Your task to perform on an android device: turn on javascript in the chrome app Image 0: 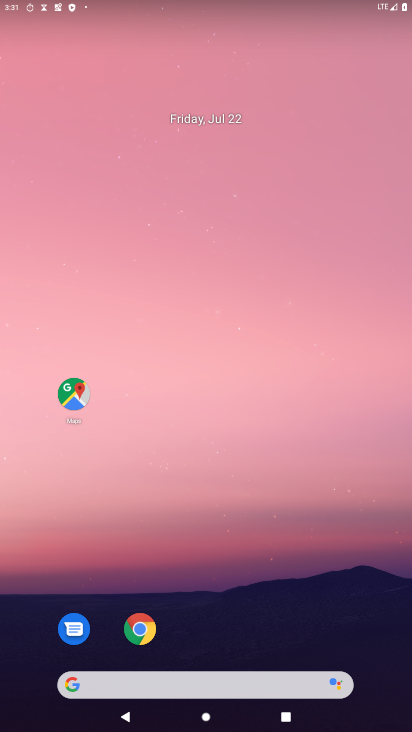
Step 0: drag from (244, 545) to (297, 24)
Your task to perform on an android device: turn on javascript in the chrome app Image 1: 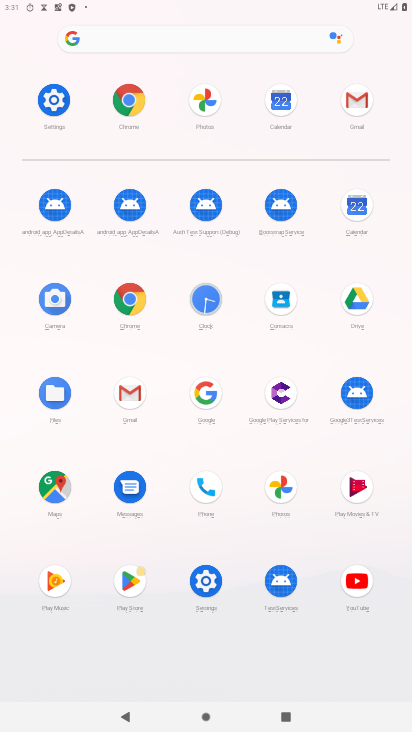
Step 1: click (125, 291)
Your task to perform on an android device: turn on javascript in the chrome app Image 2: 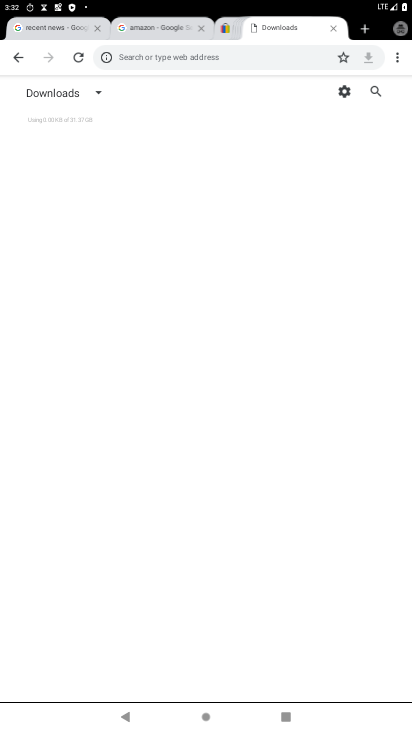
Step 2: click (398, 55)
Your task to perform on an android device: turn on javascript in the chrome app Image 3: 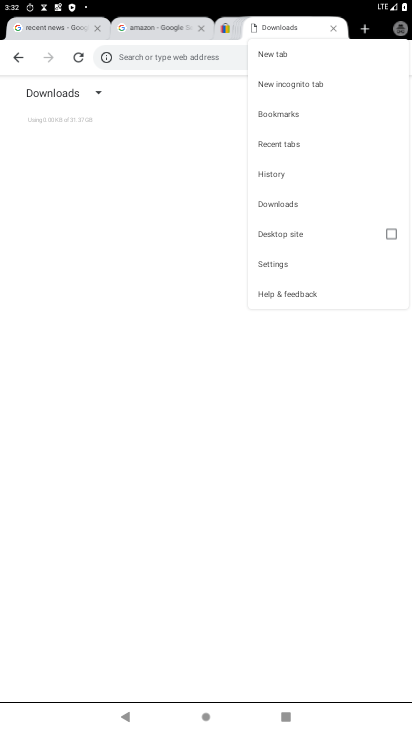
Step 3: click (296, 262)
Your task to perform on an android device: turn on javascript in the chrome app Image 4: 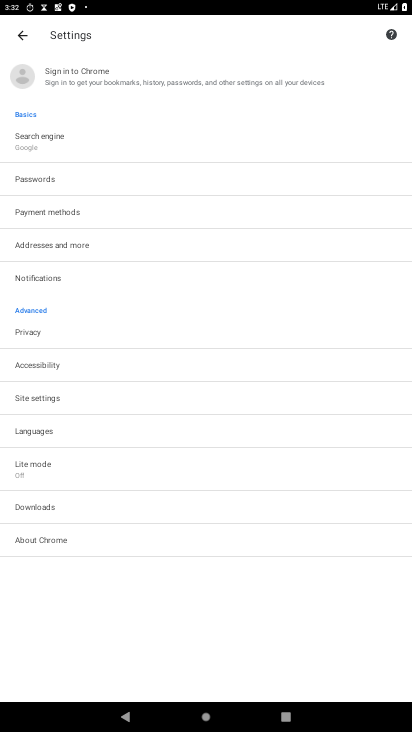
Step 4: click (69, 394)
Your task to perform on an android device: turn on javascript in the chrome app Image 5: 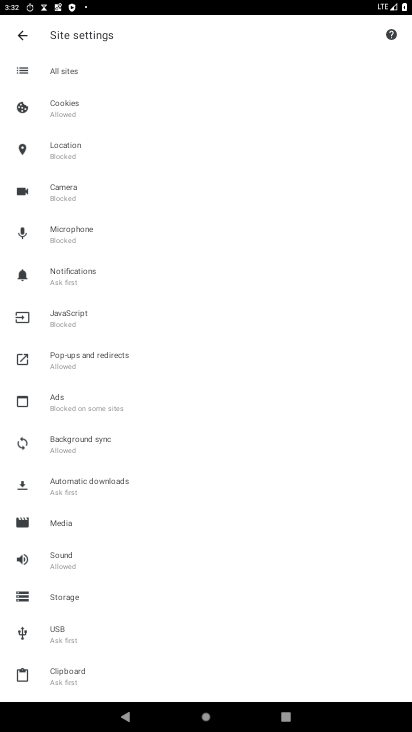
Step 5: click (75, 313)
Your task to perform on an android device: turn on javascript in the chrome app Image 6: 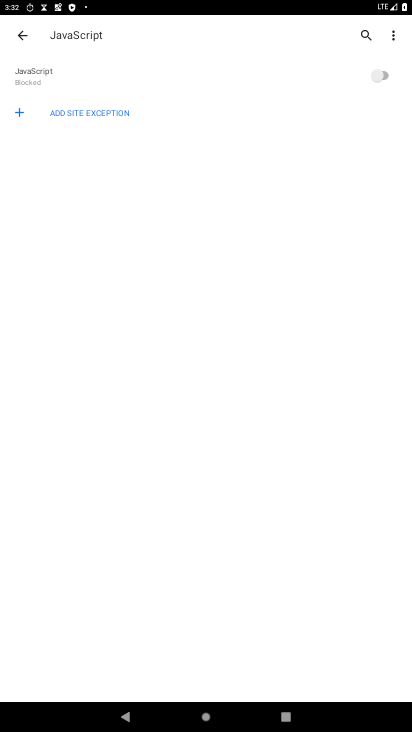
Step 6: task complete